Your task to perform on an android device: toggle data saver in the chrome app Image 0: 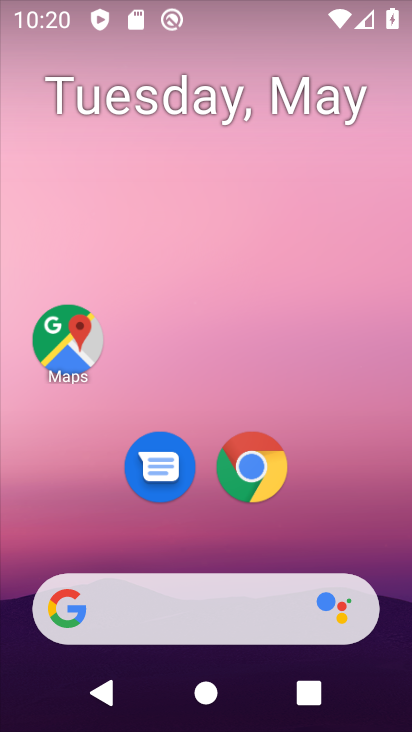
Step 0: drag from (184, 557) to (236, 134)
Your task to perform on an android device: toggle data saver in the chrome app Image 1: 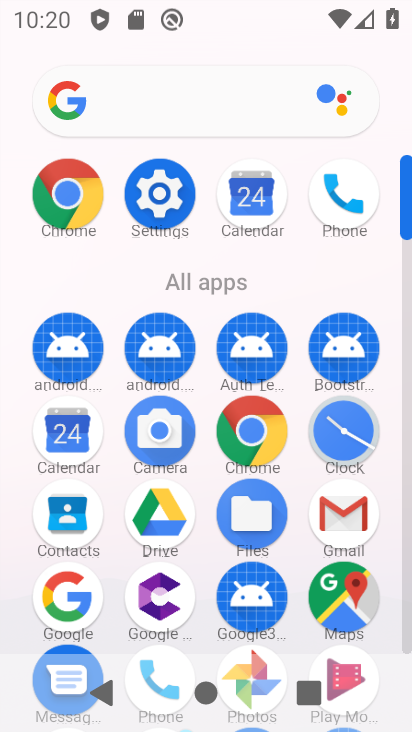
Step 1: click (257, 444)
Your task to perform on an android device: toggle data saver in the chrome app Image 2: 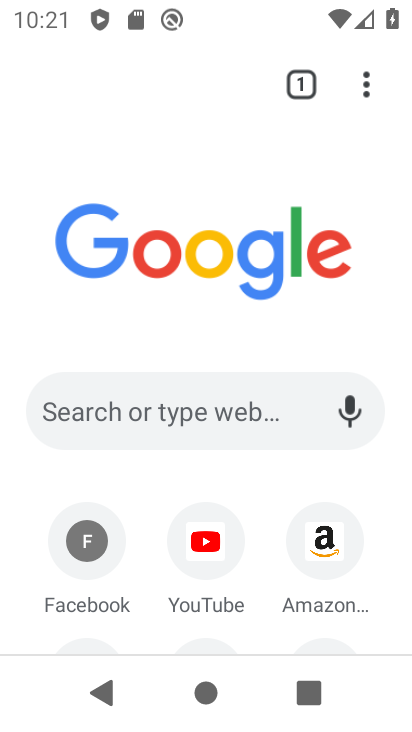
Step 2: click (364, 70)
Your task to perform on an android device: toggle data saver in the chrome app Image 3: 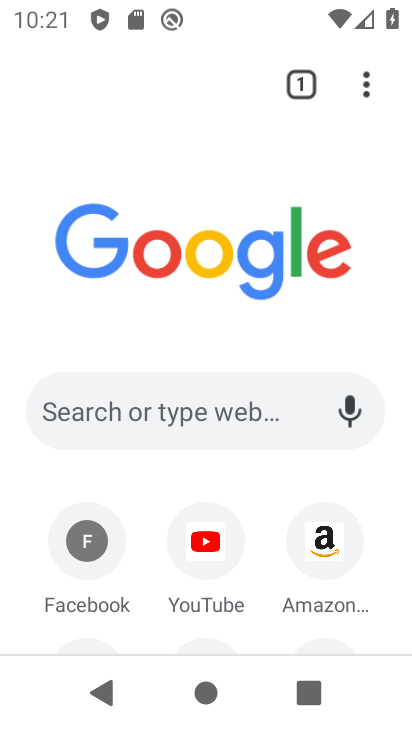
Step 3: click (359, 77)
Your task to perform on an android device: toggle data saver in the chrome app Image 4: 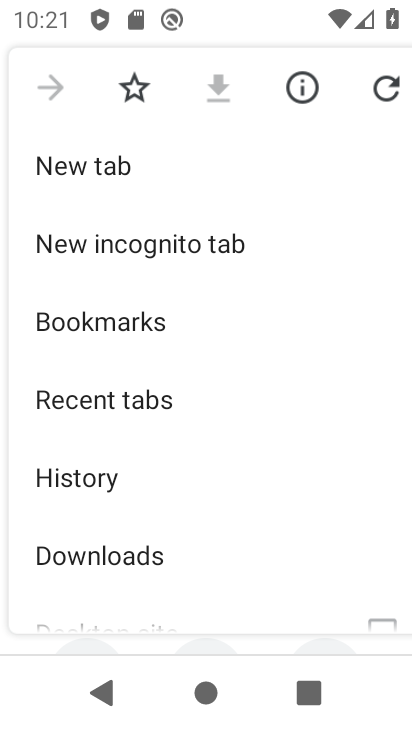
Step 4: drag from (140, 534) to (225, 56)
Your task to perform on an android device: toggle data saver in the chrome app Image 5: 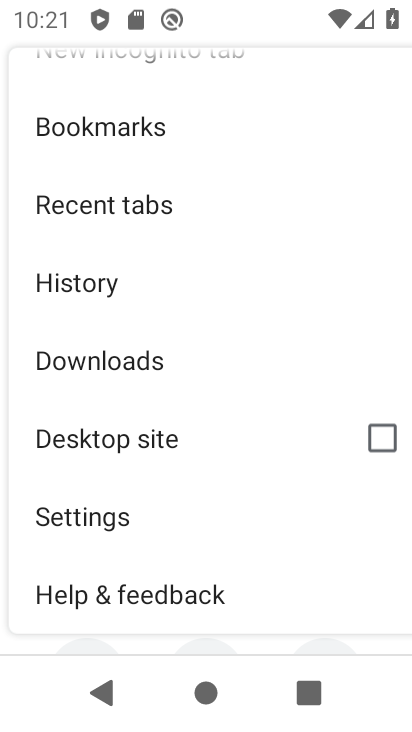
Step 5: click (121, 509)
Your task to perform on an android device: toggle data saver in the chrome app Image 6: 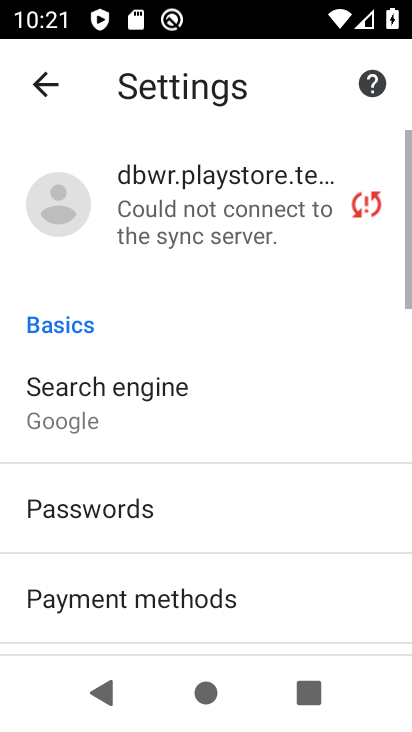
Step 6: drag from (227, 502) to (302, 125)
Your task to perform on an android device: toggle data saver in the chrome app Image 7: 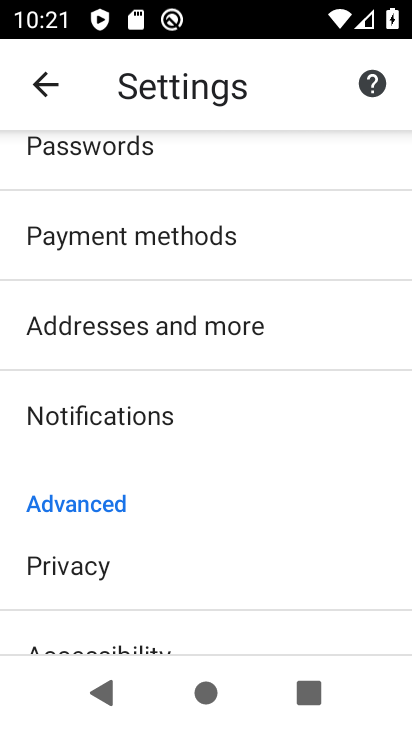
Step 7: click (226, 109)
Your task to perform on an android device: toggle data saver in the chrome app Image 8: 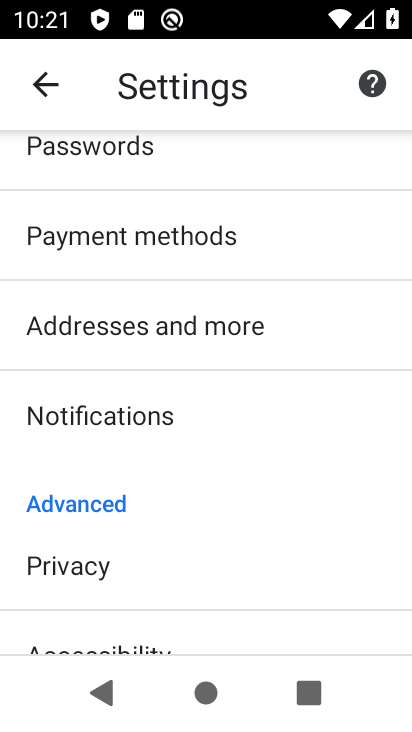
Step 8: drag from (167, 585) to (221, 153)
Your task to perform on an android device: toggle data saver in the chrome app Image 9: 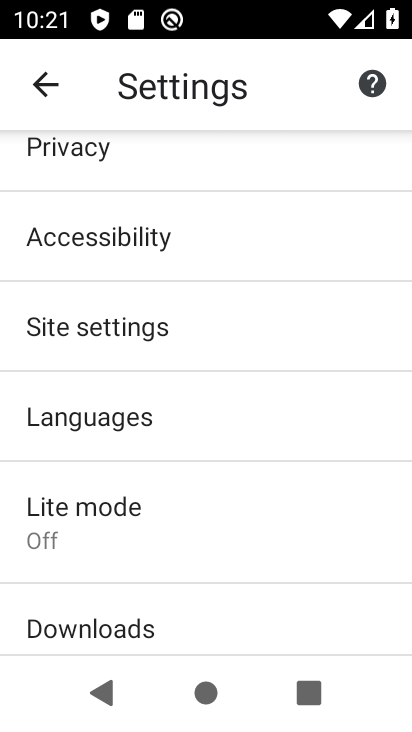
Step 9: click (115, 517)
Your task to perform on an android device: toggle data saver in the chrome app Image 10: 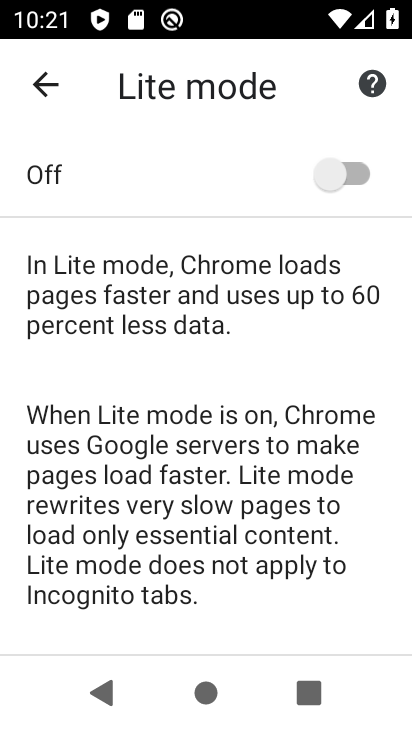
Step 10: click (345, 164)
Your task to perform on an android device: toggle data saver in the chrome app Image 11: 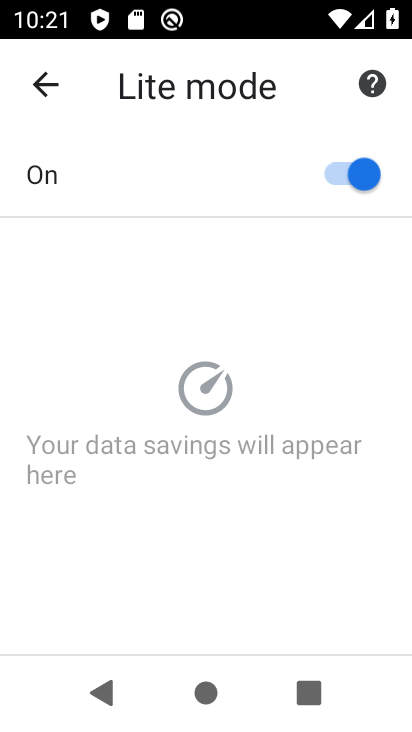
Step 11: task complete